Your task to perform on an android device: What's the weather going to be this weekend? Image 0: 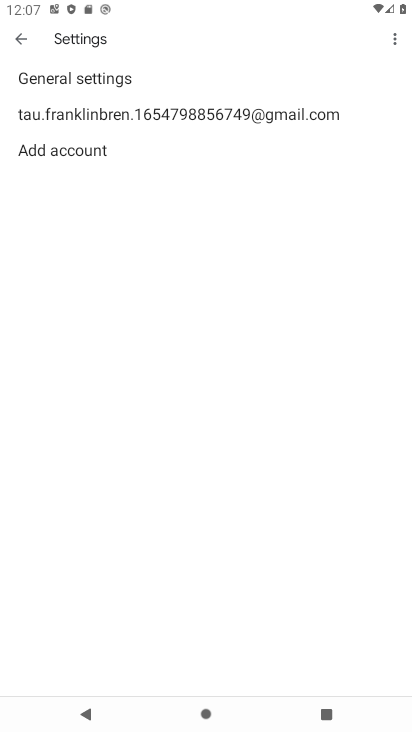
Step 0: press home button
Your task to perform on an android device: What's the weather going to be this weekend? Image 1: 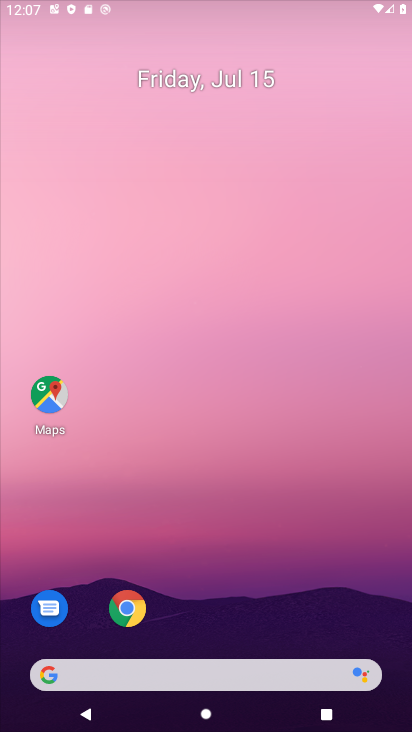
Step 1: drag from (221, 694) to (241, 122)
Your task to perform on an android device: What's the weather going to be this weekend? Image 2: 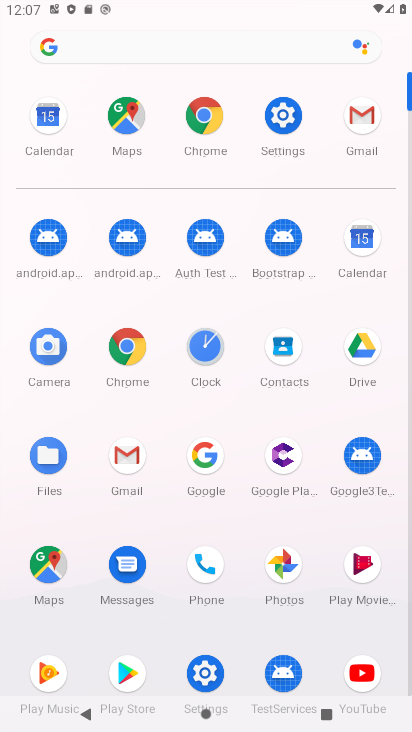
Step 2: click (354, 234)
Your task to perform on an android device: What's the weather going to be this weekend? Image 3: 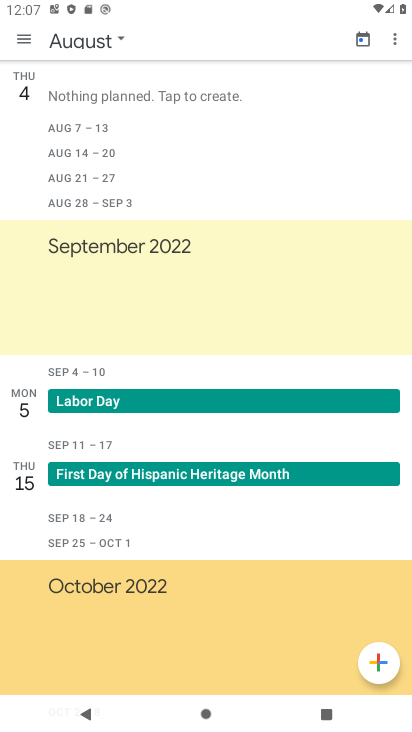
Step 3: click (117, 35)
Your task to perform on an android device: What's the weather going to be this weekend? Image 4: 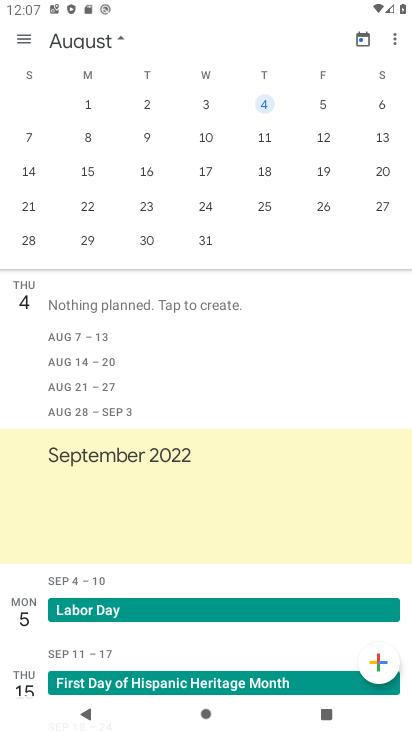
Step 4: drag from (14, 171) to (409, 188)
Your task to perform on an android device: What's the weather going to be this weekend? Image 5: 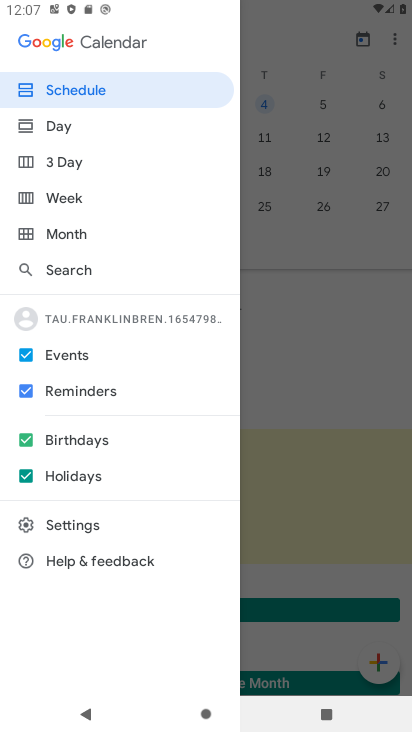
Step 5: click (356, 183)
Your task to perform on an android device: What's the weather going to be this weekend? Image 6: 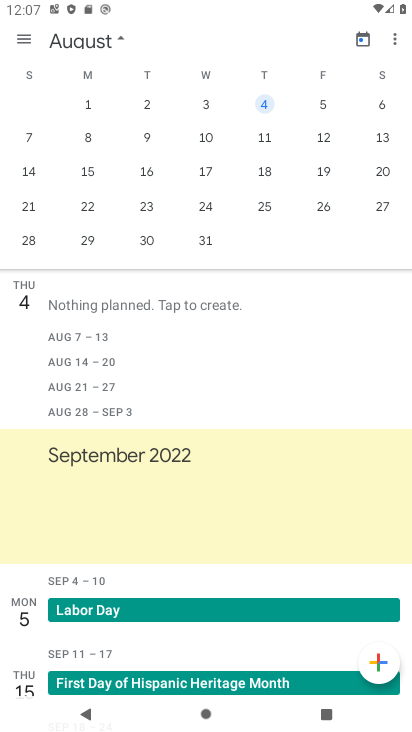
Step 6: drag from (49, 179) to (398, 190)
Your task to perform on an android device: What's the weather going to be this weekend? Image 7: 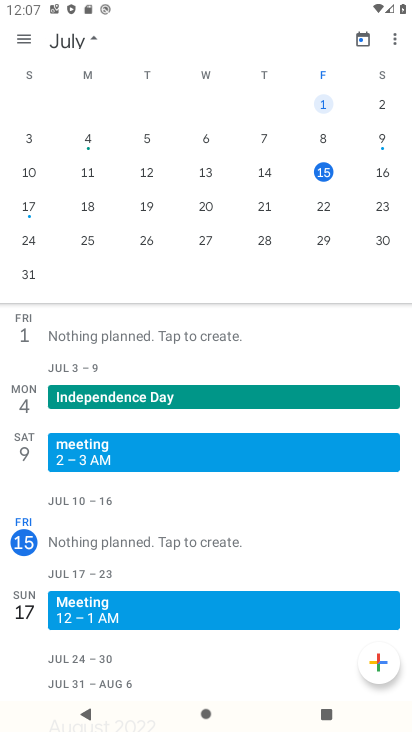
Step 7: click (381, 175)
Your task to perform on an android device: What's the weather going to be this weekend? Image 8: 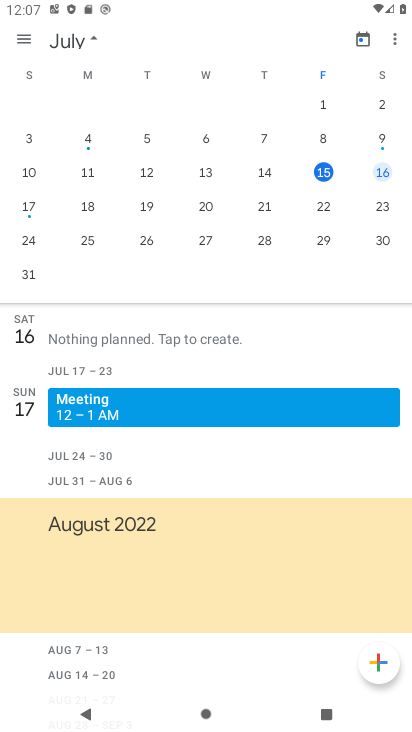
Step 8: task complete